Your task to perform on an android device: install app "Upside-Cash back on gas & food" Image 0: 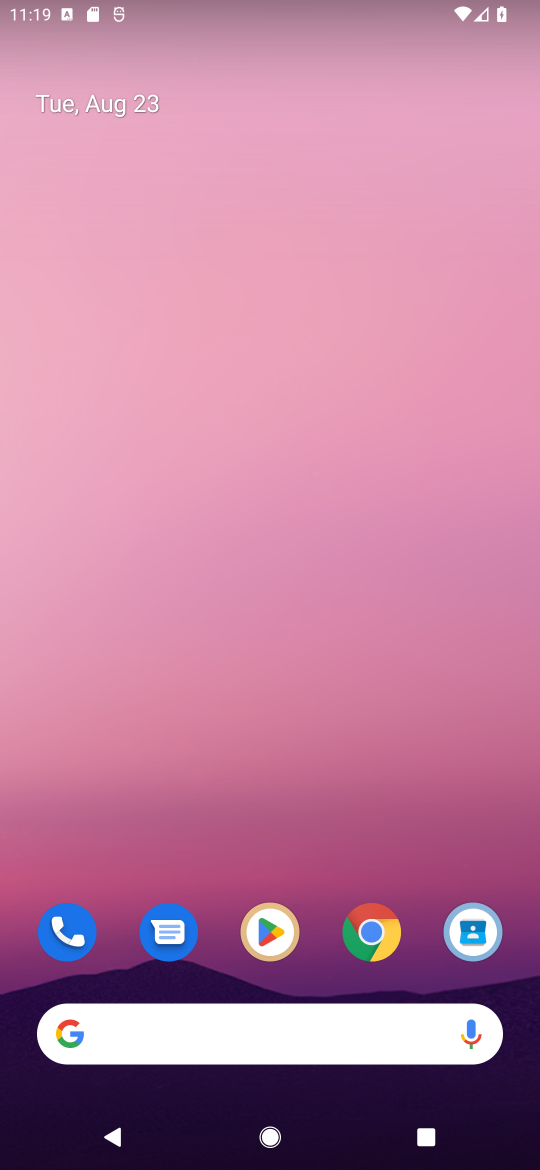
Step 0: click (290, 909)
Your task to perform on an android device: install app "Upside-Cash back on gas & food" Image 1: 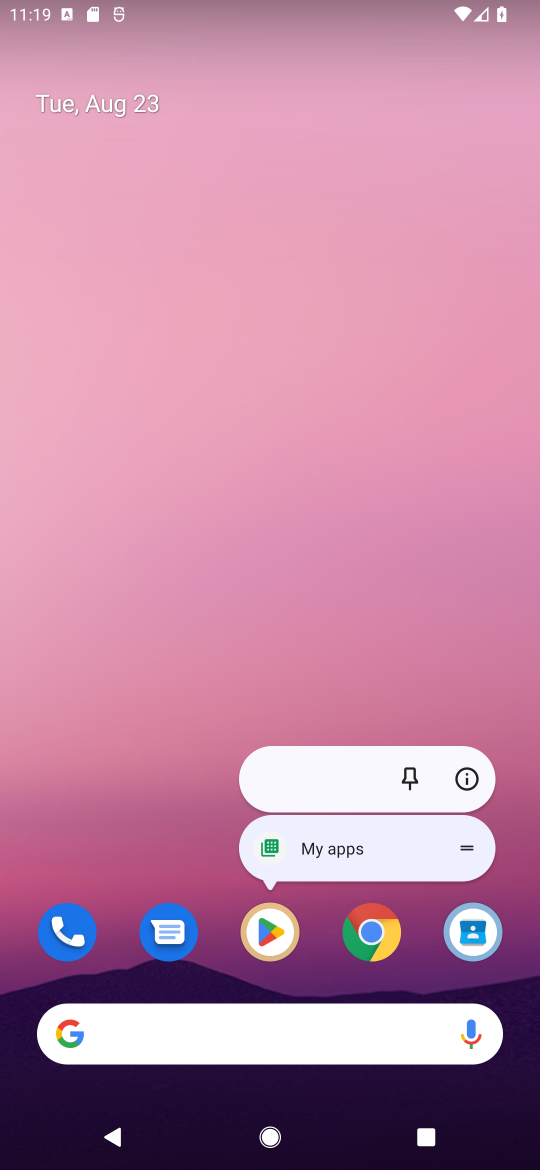
Step 1: click (256, 937)
Your task to perform on an android device: install app "Upside-Cash back on gas & food" Image 2: 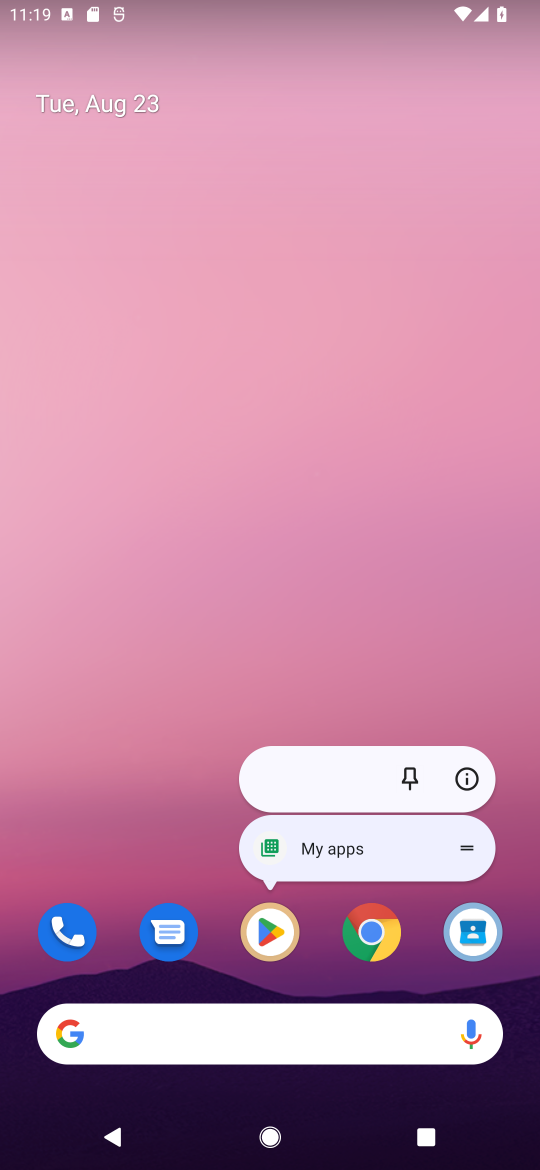
Step 2: click (284, 932)
Your task to perform on an android device: install app "Upside-Cash back on gas & food" Image 3: 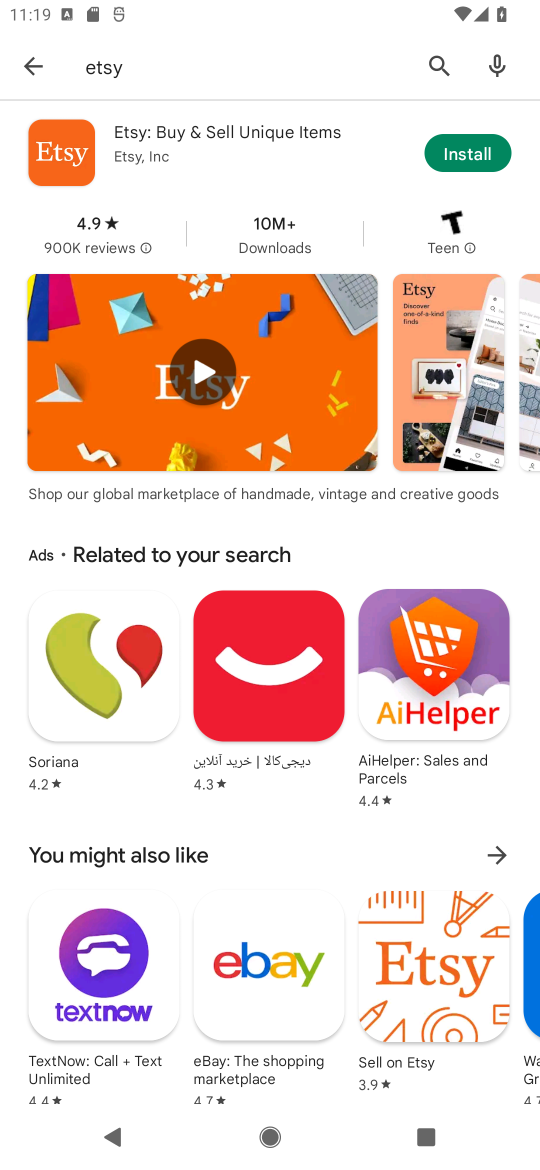
Step 3: click (427, 62)
Your task to perform on an android device: install app "Upside-Cash back on gas & food" Image 4: 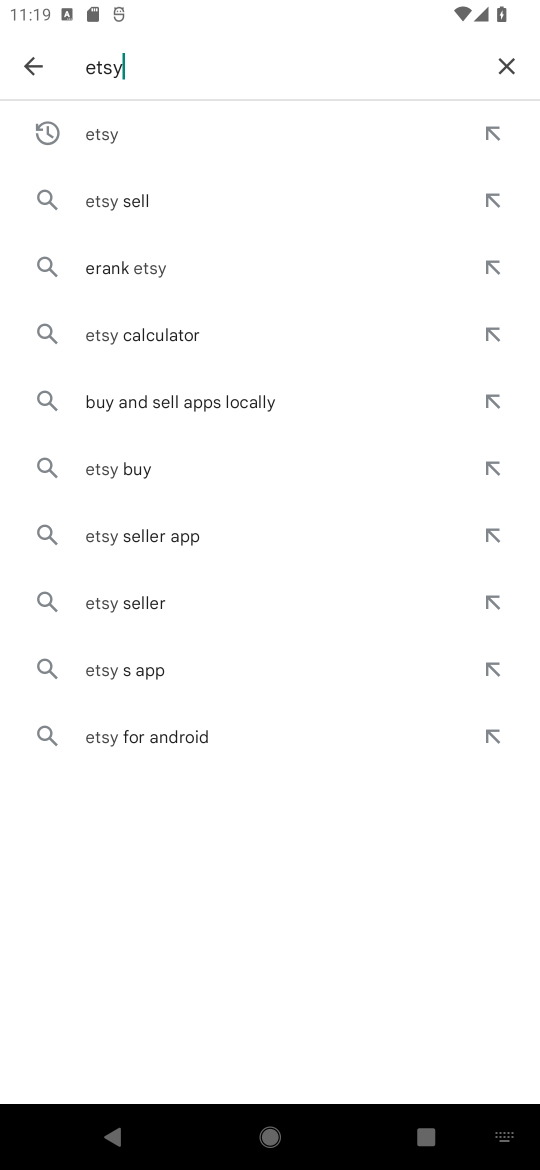
Step 4: click (515, 59)
Your task to perform on an android device: install app "Upside-Cash back on gas & food" Image 5: 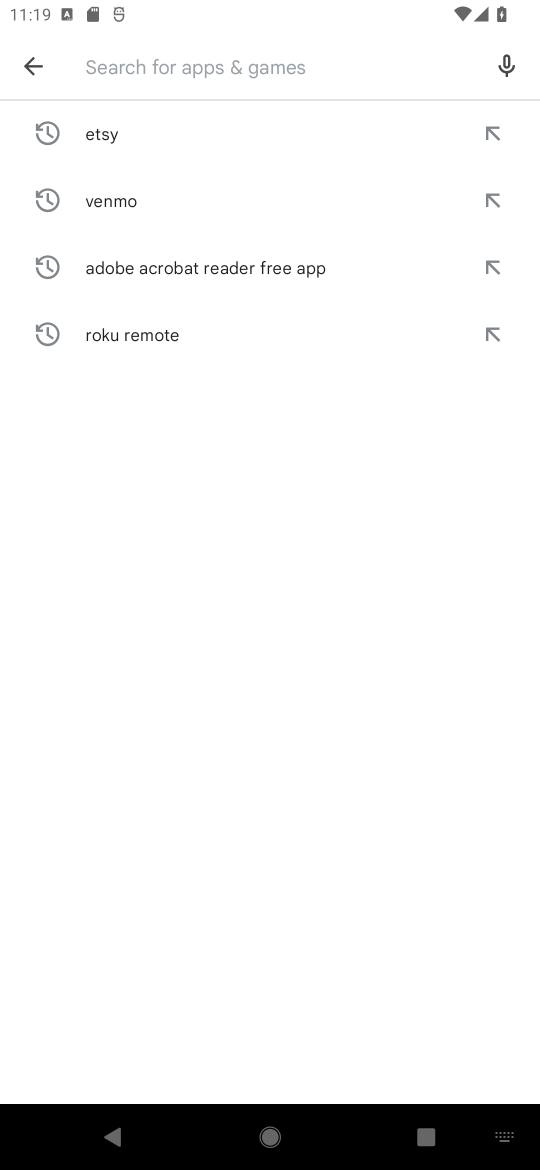
Step 5: click (206, 70)
Your task to perform on an android device: install app "Upside-Cash back on gas & food" Image 6: 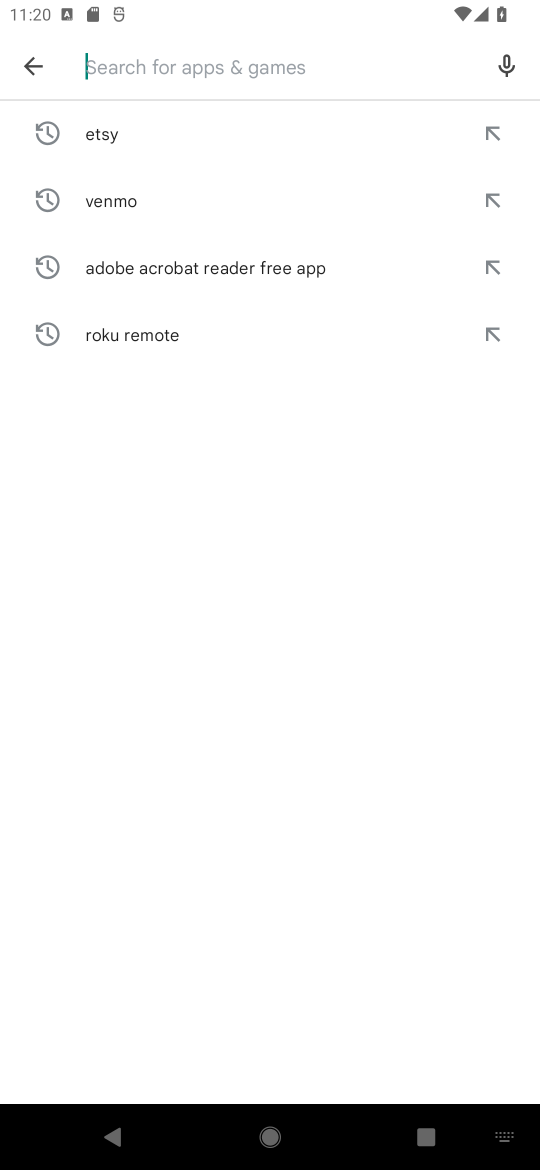
Step 6: type "Upside-Cash back on gas & food"
Your task to perform on an android device: install app "Upside-Cash back on gas & food" Image 7: 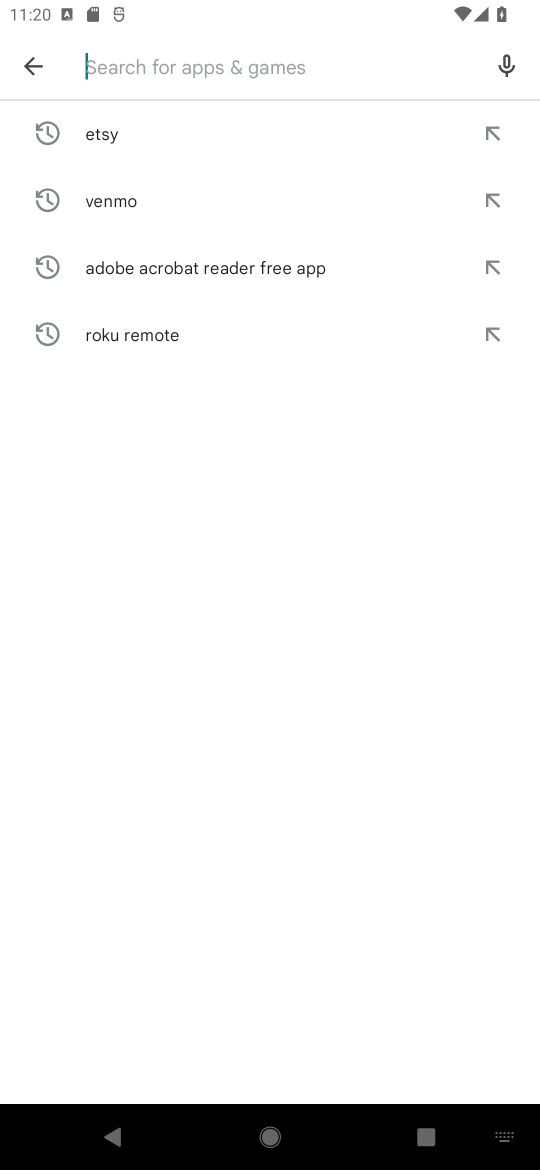
Step 7: click (236, 750)
Your task to perform on an android device: install app "Upside-Cash back on gas & food" Image 8: 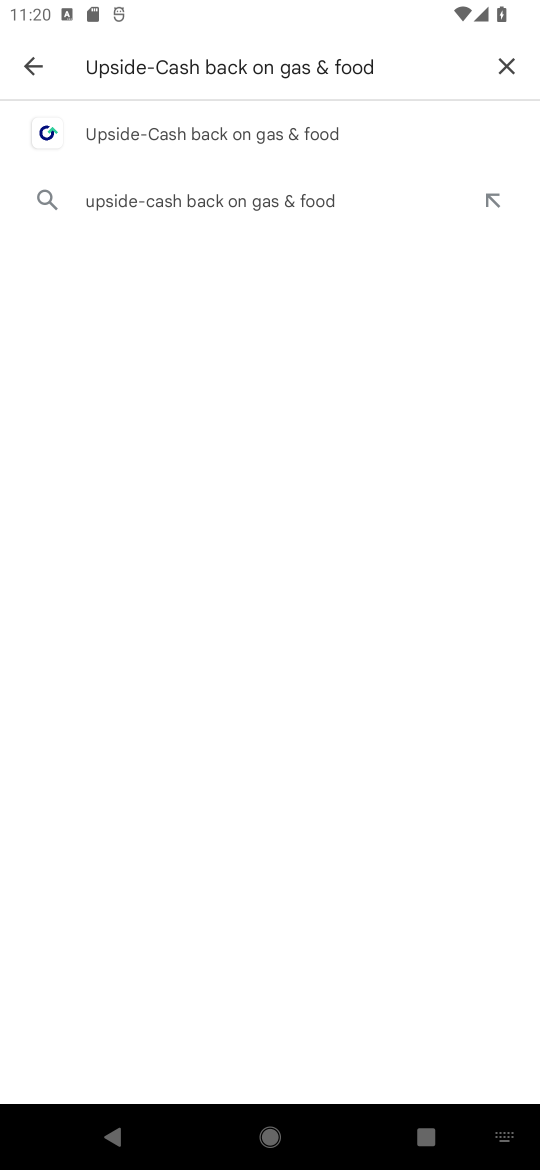
Step 8: click (242, 128)
Your task to perform on an android device: install app "Upside-Cash back on gas & food" Image 9: 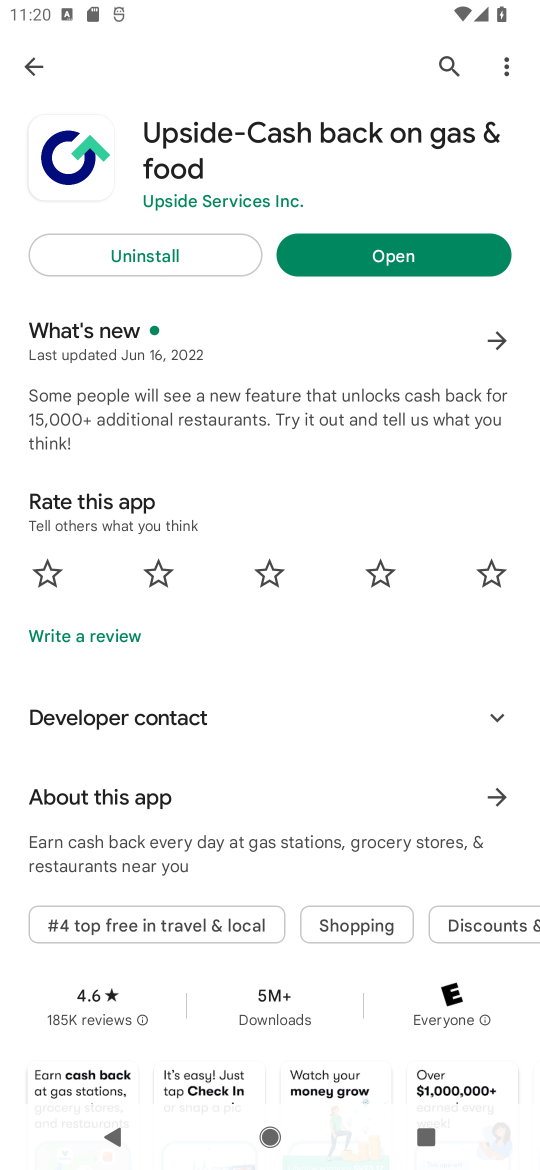
Step 9: task complete